Your task to perform on an android device: empty trash in google photos Image 0: 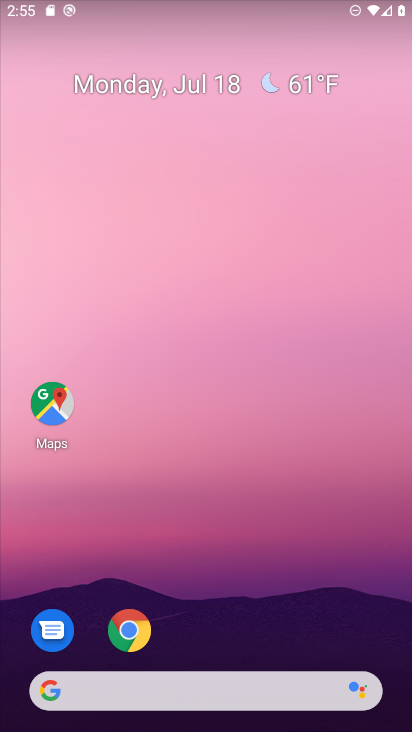
Step 0: drag from (226, 525) to (255, 50)
Your task to perform on an android device: empty trash in google photos Image 1: 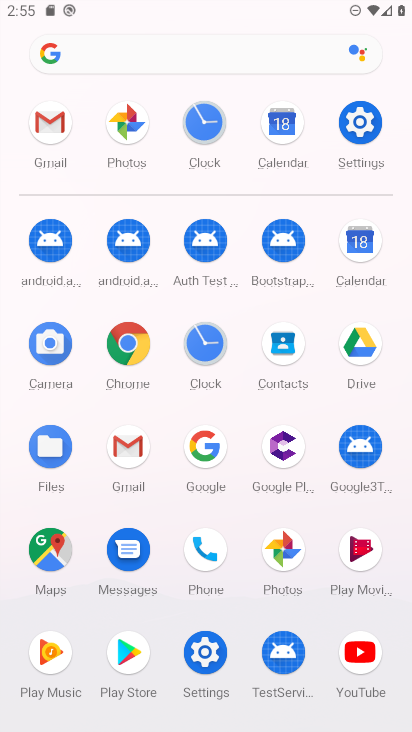
Step 1: click (134, 134)
Your task to perform on an android device: empty trash in google photos Image 2: 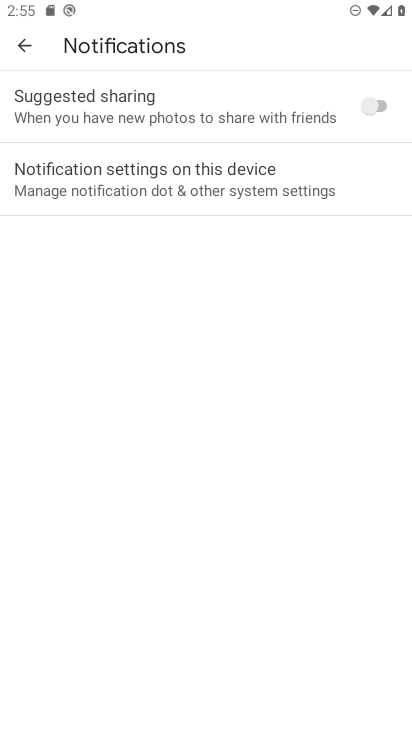
Step 2: click (26, 42)
Your task to perform on an android device: empty trash in google photos Image 3: 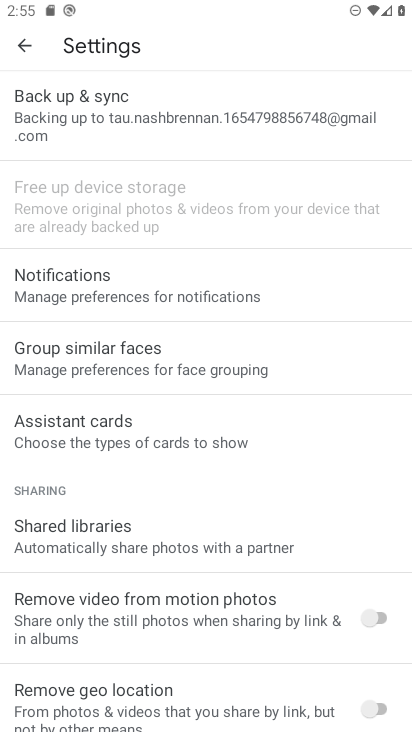
Step 3: click (26, 44)
Your task to perform on an android device: empty trash in google photos Image 4: 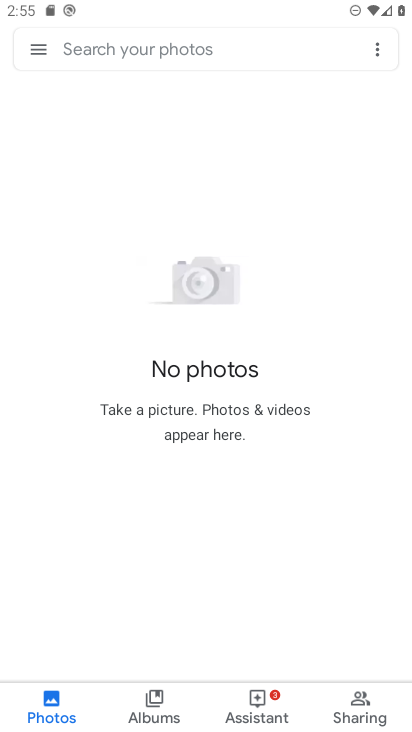
Step 4: click (42, 43)
Your task to perform on an android device: empty trash in google photos Image 5: 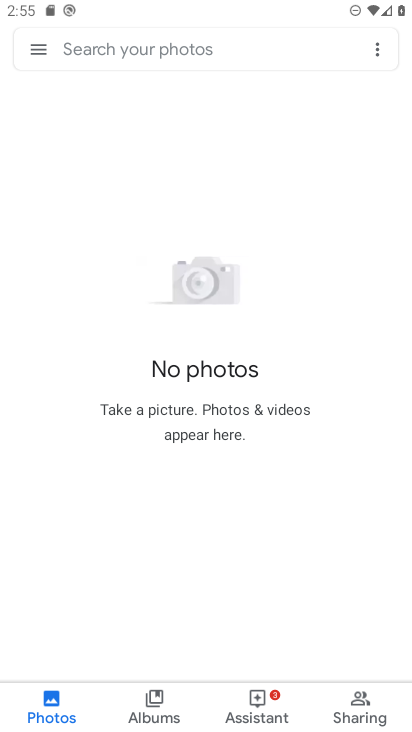
Step 5: click (42, 46)
Your task to perform on an android device: empty trash in google photos Image 6: 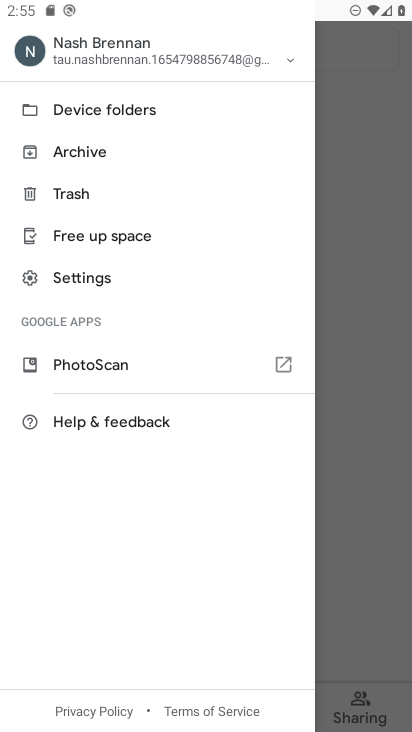
Step 6: click (81, 190)
Your task to perform on an android device: empty trash in google photos Image 7: 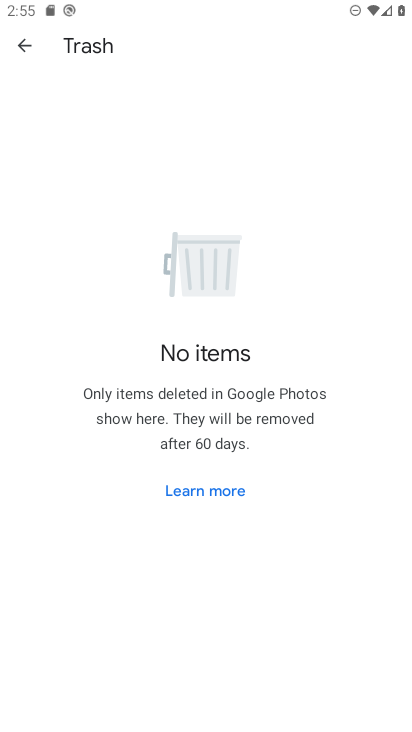
Step 7: task complete